Your task to perform on an android device: make emails show in primary in the gmail app Image 0: 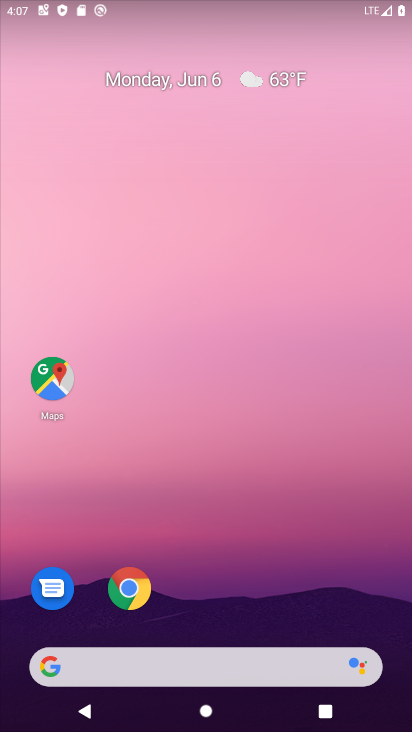
Step 0: drag from (234, 682) to (144, 122)
Your task to perform on an android device: make emails show in primary in the gmail app Image 1: 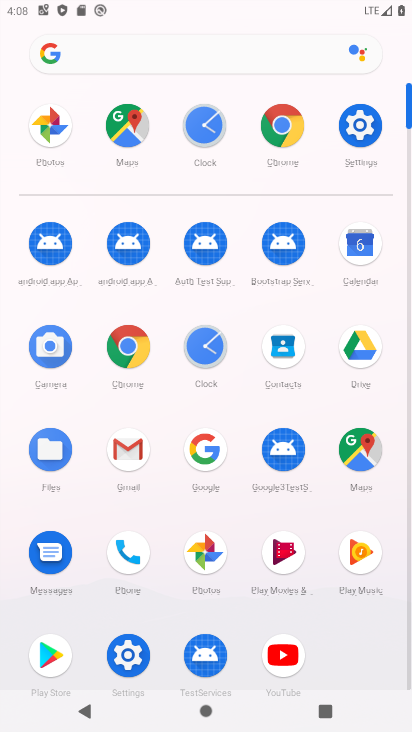
Step 1: click (115, 463)
Your task to perform on an android device: make emails show in primary in the gmail app Image 2: 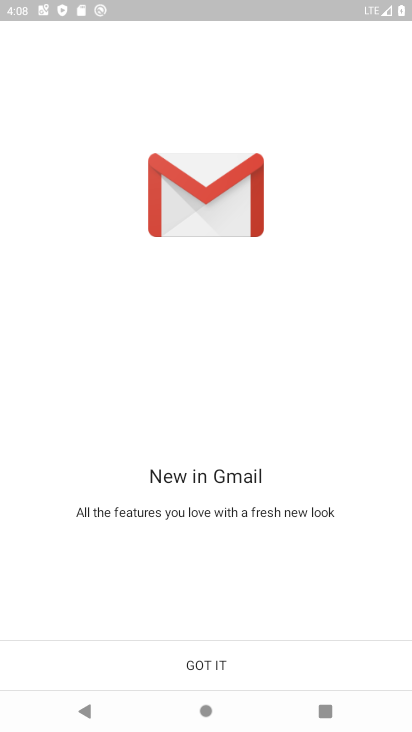
Step 2: click (204, 667)
Your task to perform on an android device: make emails show in primary in the gmail app Image 3: 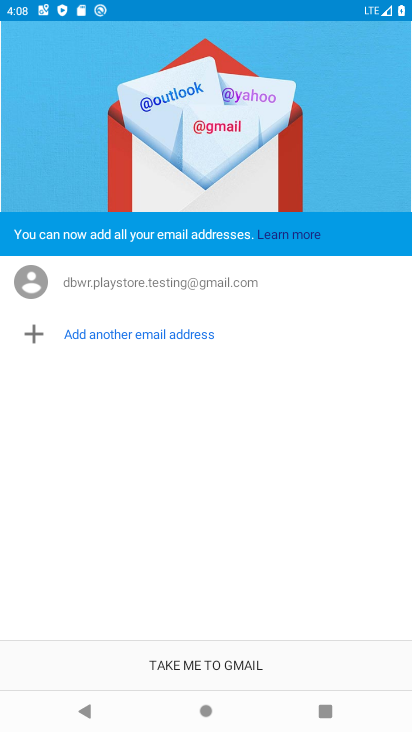
Step 3: click (203, 661)
Your task to perform on an android device: make emails show in primary in the gmail app Image 4: 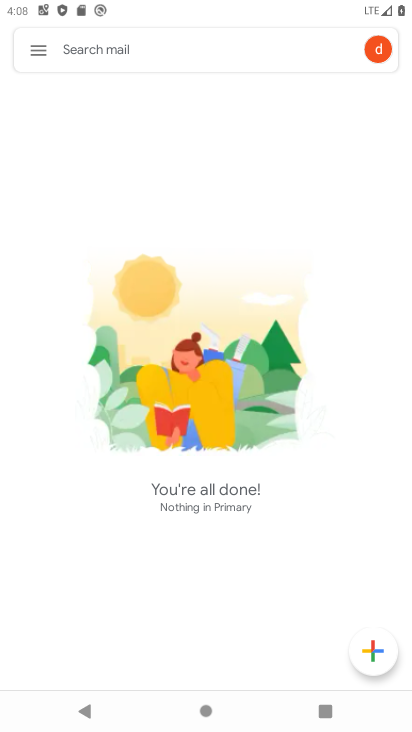
Step 4: click (35, 45)
Your task to perform on an android device: make emails show in primary in the gmail app Image 5: 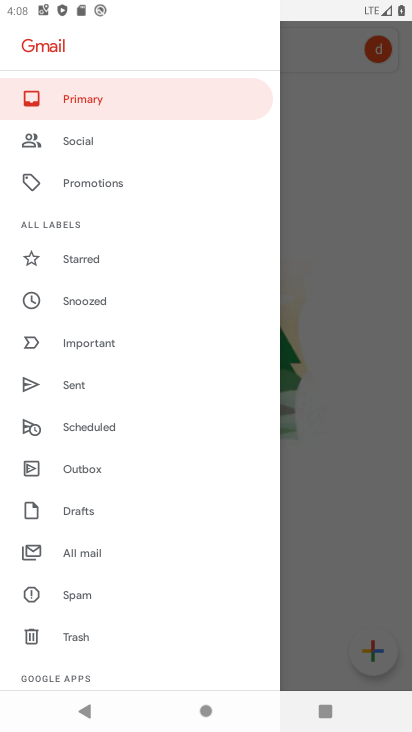
Step 5: drag from (83, 627) to (129, 155)
Your task to perform on an android device: make emails show in primary in the gmail app Image 6: 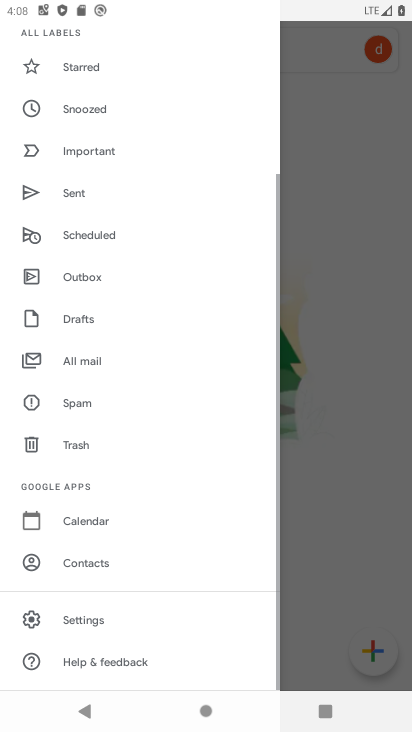
Step 6: drag from (112, 351) to (82, 62)
Your task to perform on an android device: make emails show in primary in the gmail app Image 7: 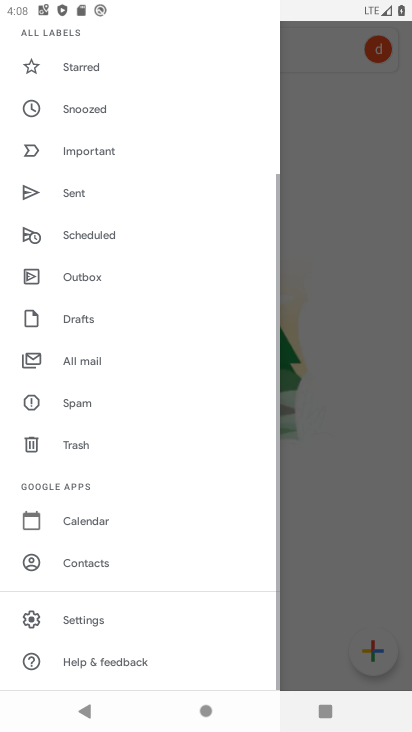
Step 7: drag from (84, 602) to (92, 294)
Your task to perform on an android device: make emails show in primary in the gmail app Image 8: 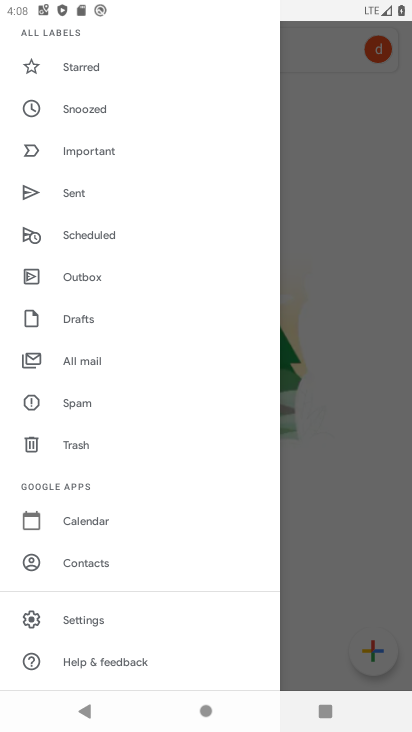
Step 8: click (75, 620)
Your task to perform on an android device: make emails show in primary in the gmail app Image 9: 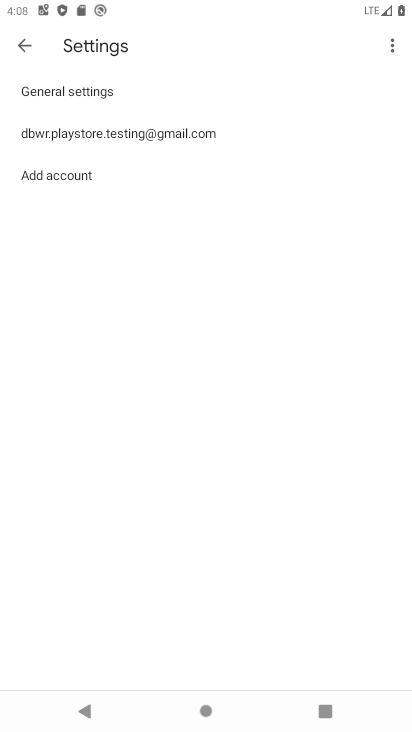
Step 9: click (68, 133)
Your task to perform on an android device: make emails show in primary in the gmail app Image 10: 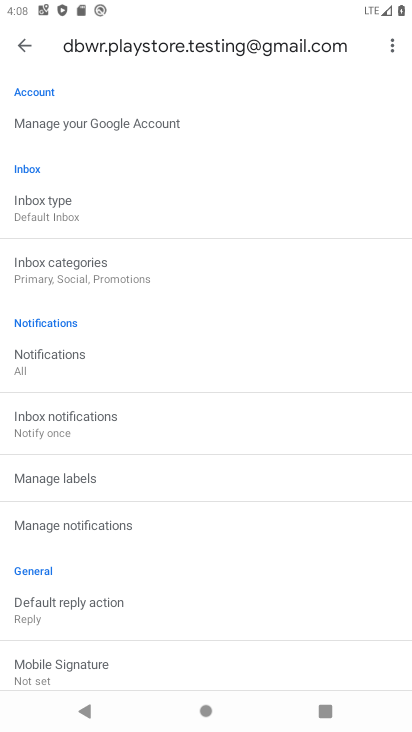
Step 10: click (60, 269)
Your task to perform on an android device: make emails show in primary in the gmail app Image 11: 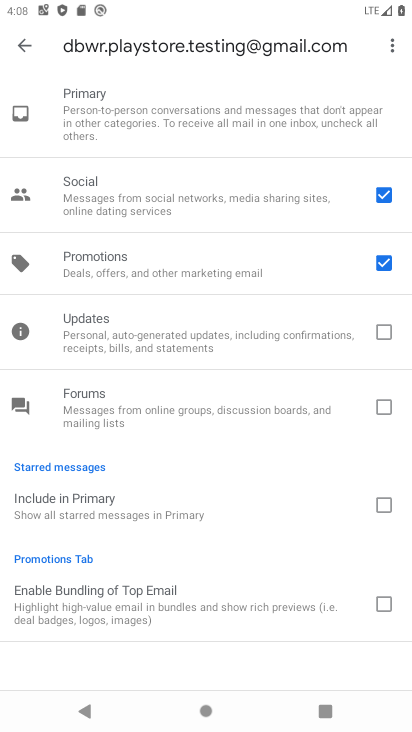
Step 11: click (90, 117)
Your task to perform on an android device: make emails show in primary in the gmail app Image 12: 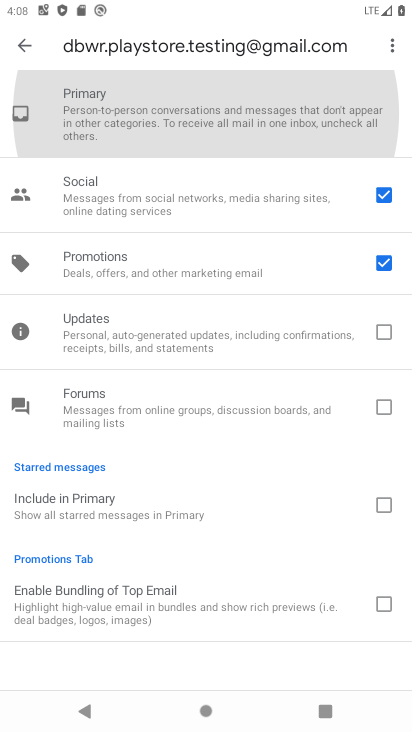
Step 12: click (90, 117)
Your task to perform on an android device: make emails show in primary in the gmail app Image 13: 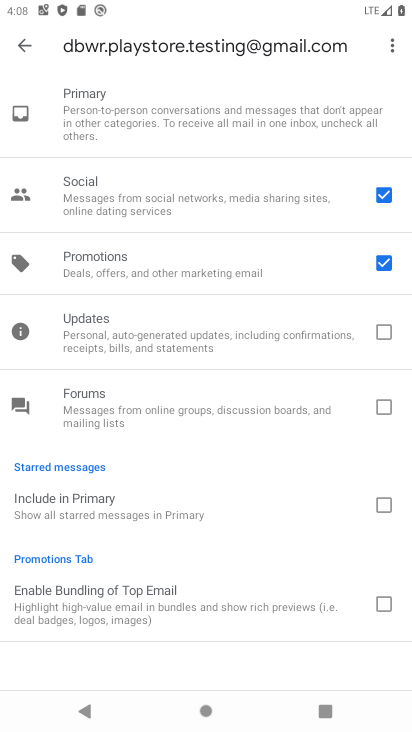
Step 13: click (90, 117)
Your task to perform on an android device: make emails show in primary in the gmail app Image 14: 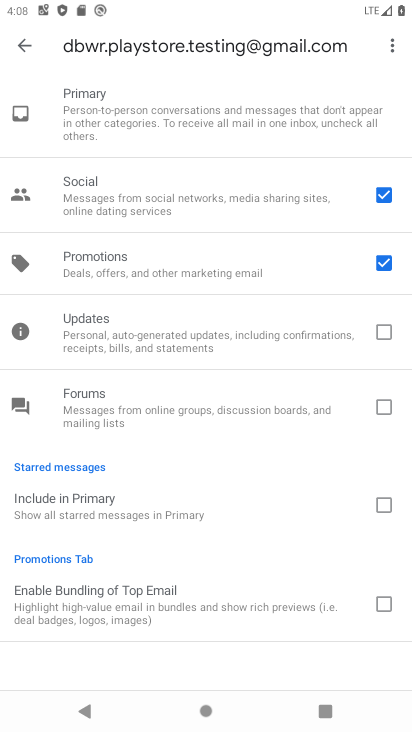
Step 14: click (27, 46)
Your task to perform on an android device: make emails show in primary in the gmail app Image 15: 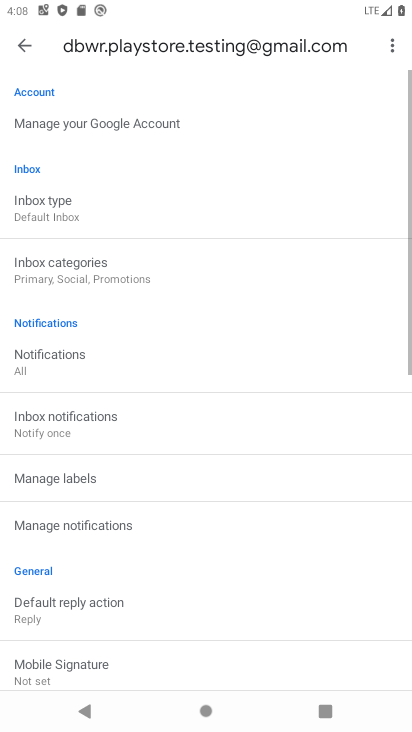
Step 15: task complete